Your task to perform on an android device: empty trash in google photos Image 0: 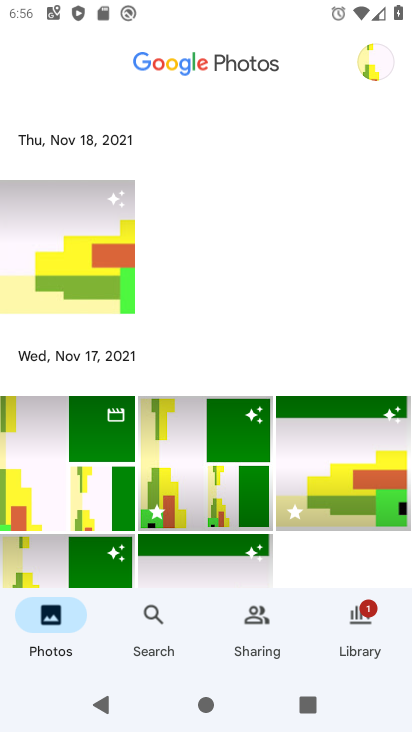
Step 0: press home button
Your task to perform on an android device: empty trash in google photos Image 1: 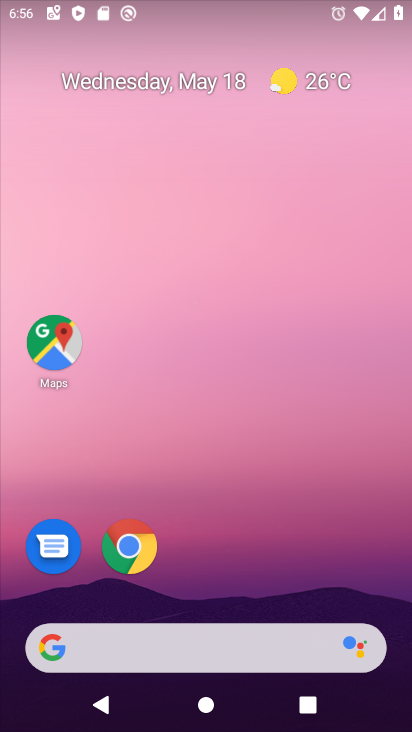
Step 1: drag from (384, 633) to (152, 20)
Your task to perform on an android device: empty trash in google photos Image 2: 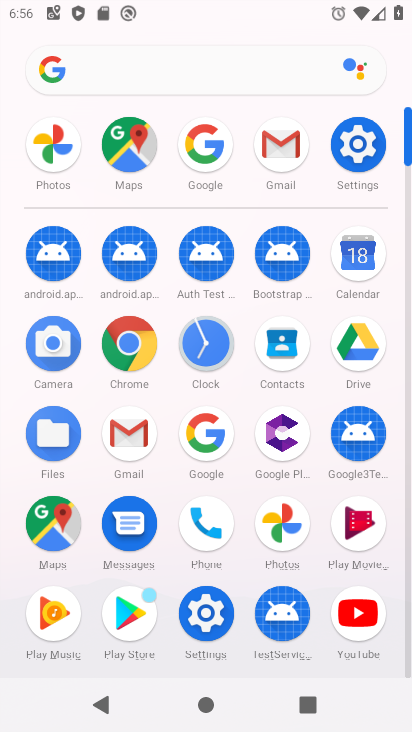
Step 2: click (275, 532)
Your task to perform on an android device: empty trash in google photos Image 3: 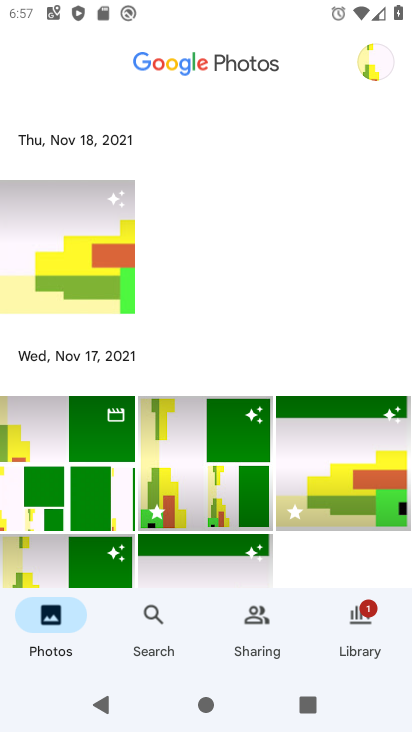
Step 3: click (347, 611)
Your task to perform on an android device: empty trash in google photos Image 4: 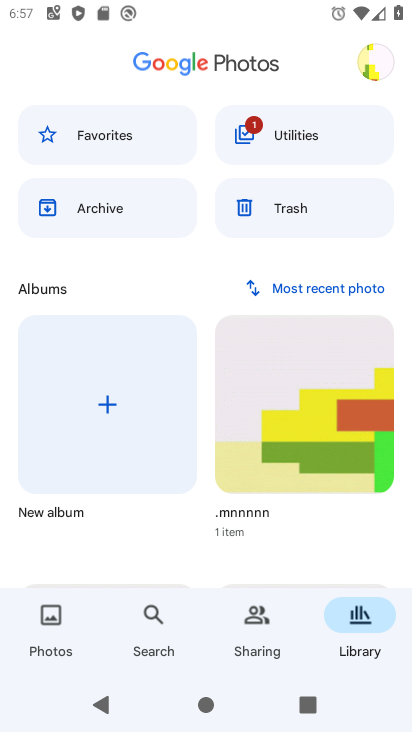
Step 4: click (339, 208)
Your task to perform on an android device: empty trash in google photos Image 5: 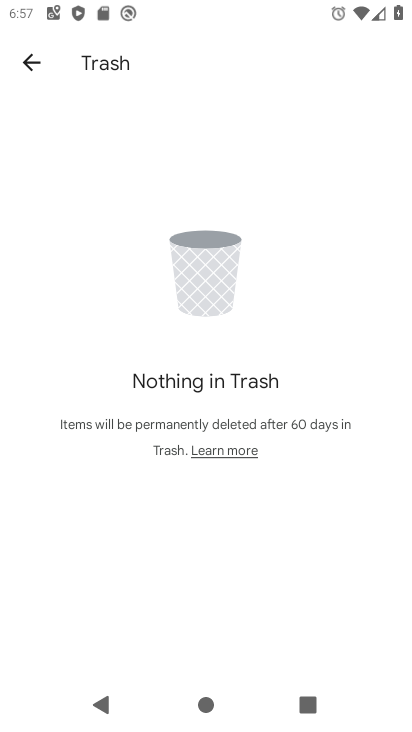
Step 5: task complete